Your task to perform on an android device: turn vacation reply on in the gmail app Image 0: 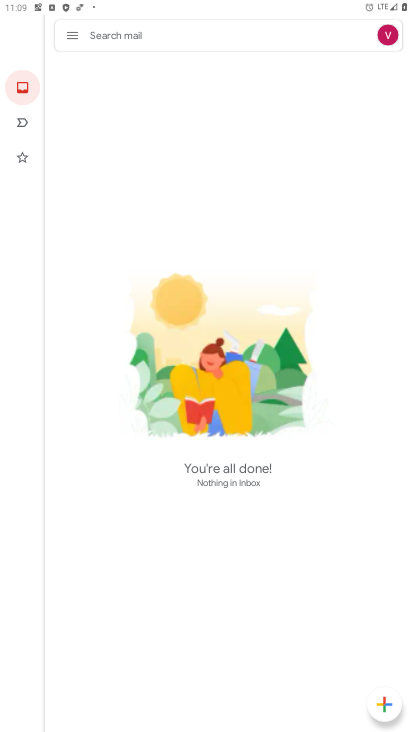
Step 0: click (69, 30)
Your task to perform on an android device: turn vacation reply on in the gmail app Image 1: 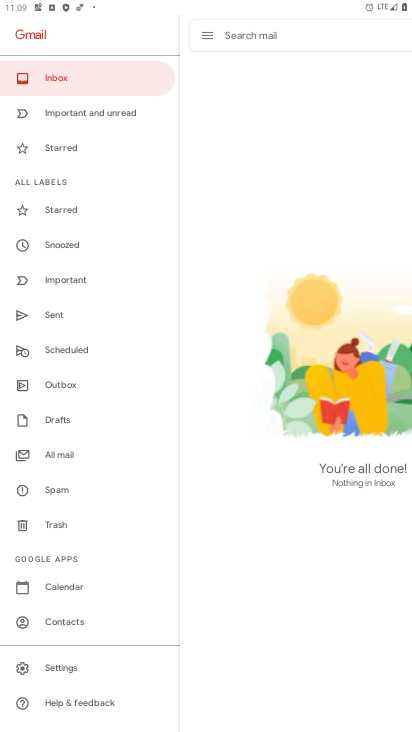
Step 1: click (68, 678)
Your task to perform on an android device: turn vacation reply on in the gmail app Image 2: 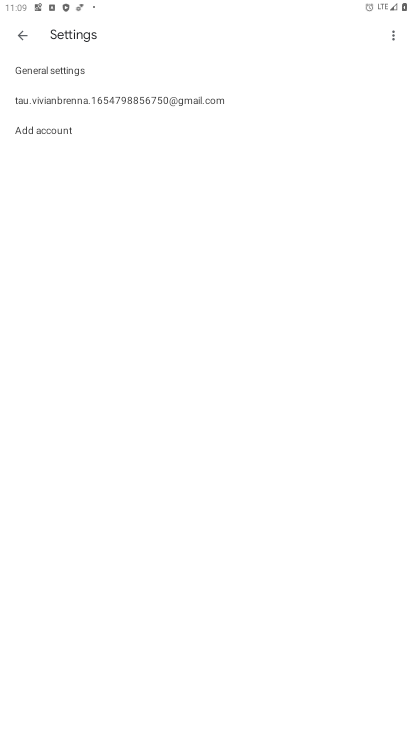
Step 2: click (266, 100)
Your task to perform on an android device: turn vacation reply on in the gmail app Image 3: 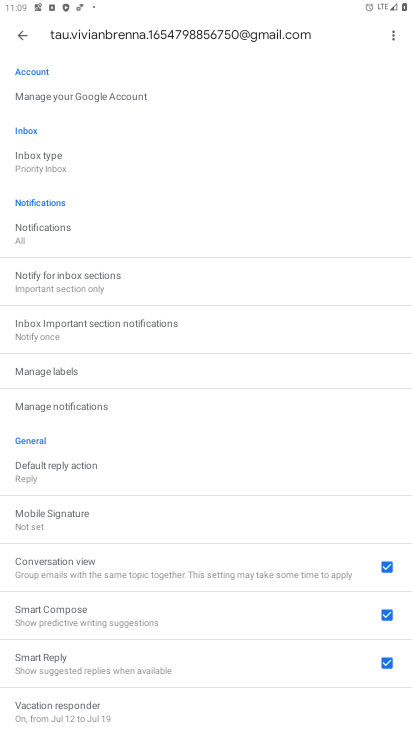
Step 3: click (81, 686)
Your task to perform on an android device: turn vacation reply on in the gmail app Image 4: 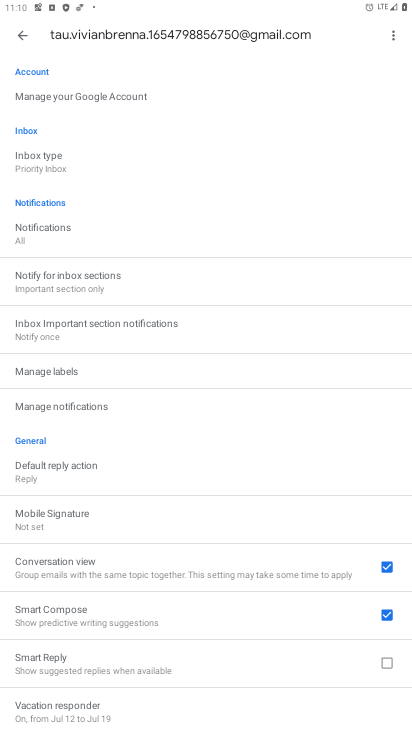
Step 4: click (120, 712)
Your task to perform on an android device: turn vacation reply on in the gmail app Image 5: 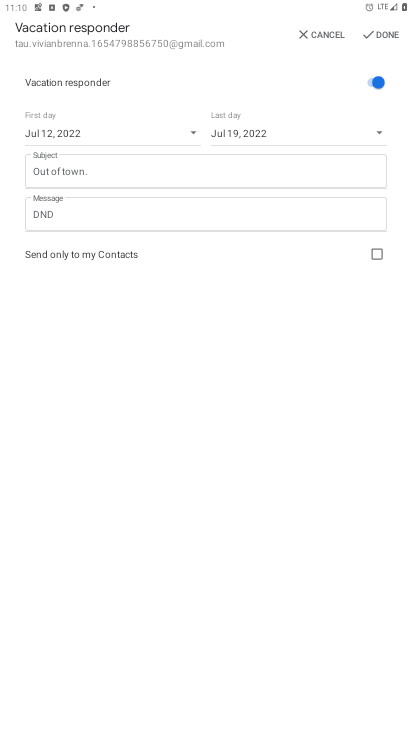
Step 5: click (378, 38)
Your task to perform on an android device: turn vacation reply on in the gmail app Image 6: 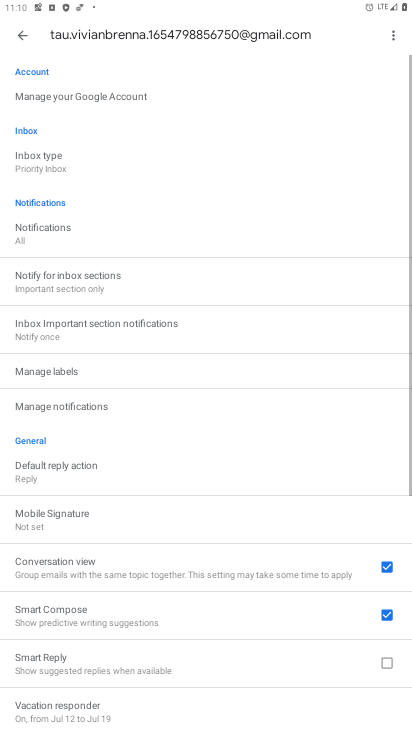
Step 6: task complete